Your task to perform on an android device: Add "logitech g933" to the cart on amazon.com, then select checkout. Image 0: 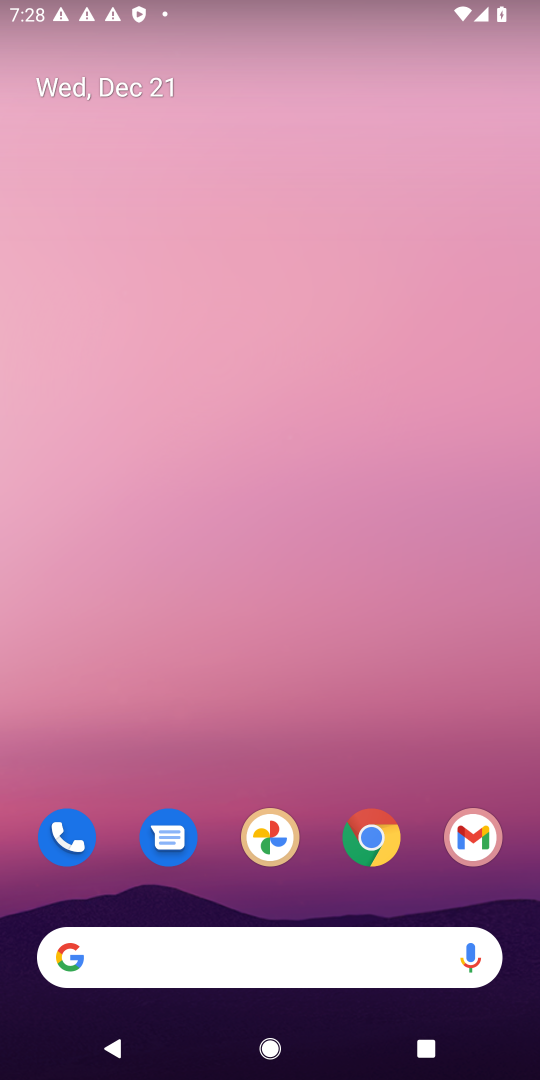
Step 0: drag from (192, 913) to (192, 235)
Your task to perform on an android device: Add "logitech g933" to the cart on amazon.com, then select checkout. Image 1: 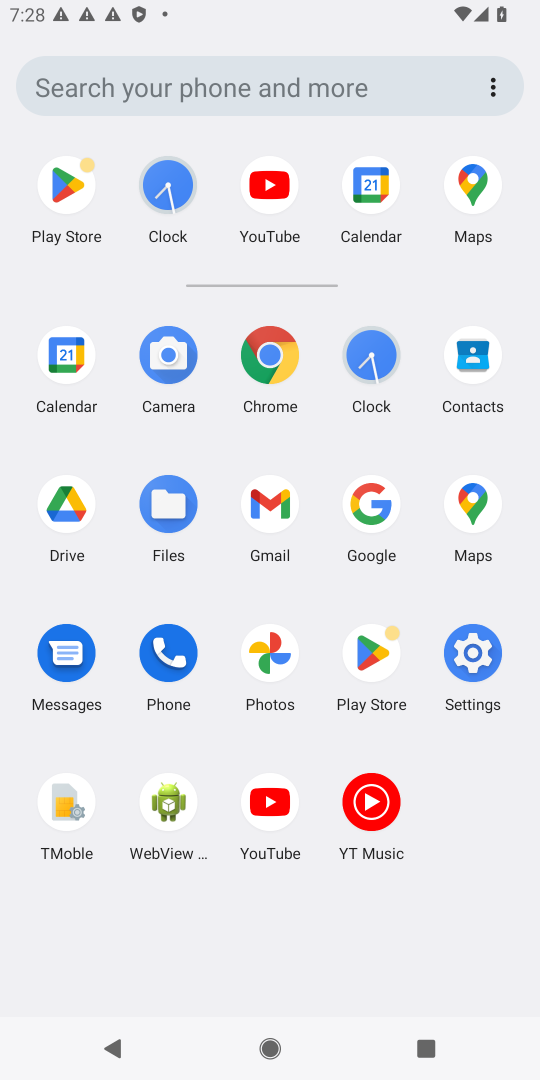
Step 1: click (361, 498)
Your task to perform on an android device: Add "logitech g933" to the cart on amazon.com, then select checkout. Image 2: 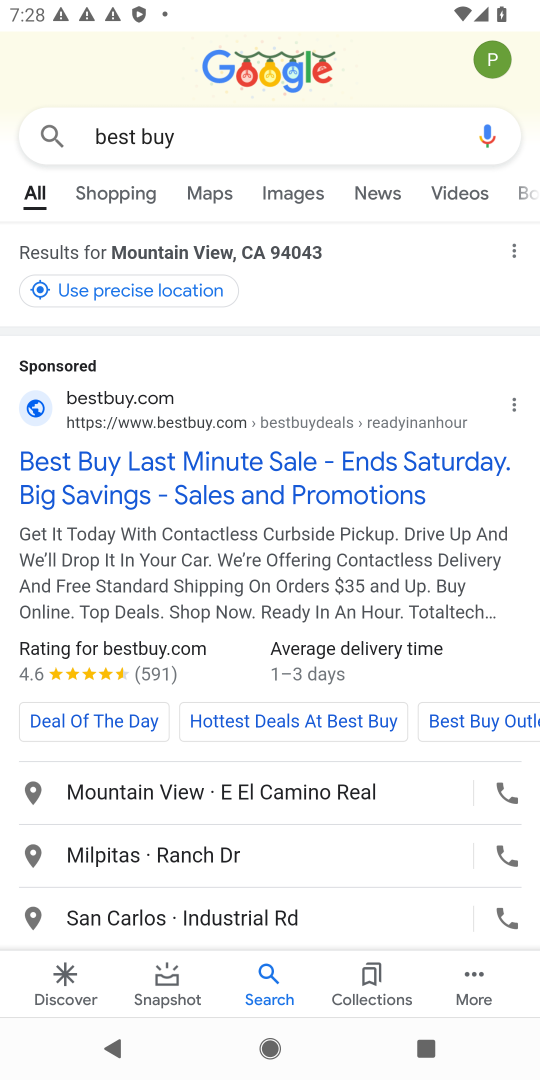
Step 2: click (134, 137)
Your task to perform on an android device: Add "logitech g933" to the cart on amazon.com, then select checkout. Image 3: 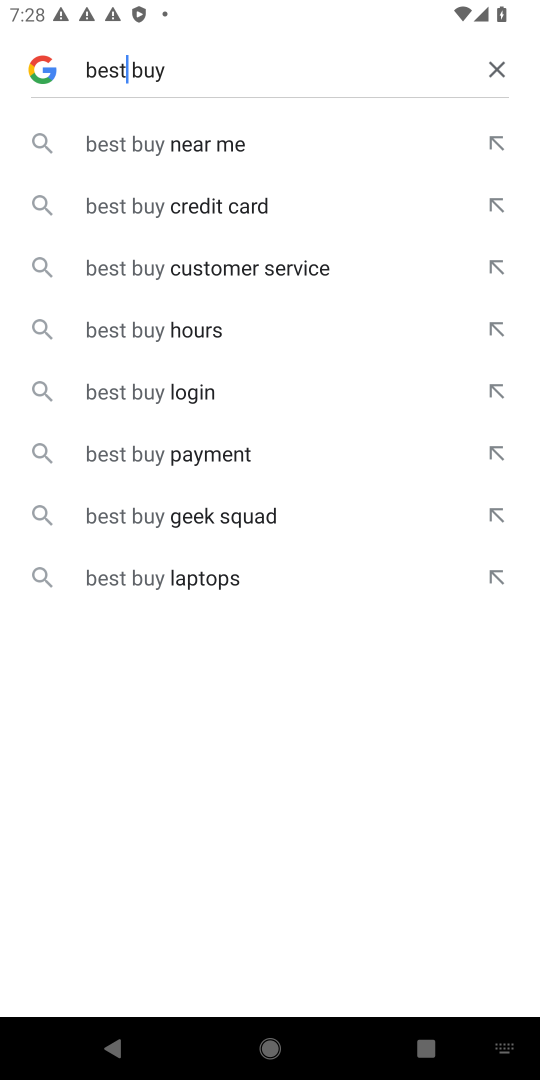
Step 3: click (501, 66)
Your task to perform on an android device: Add "logitech g933" to the cart on amazon.com, then select checkout. Image 4: 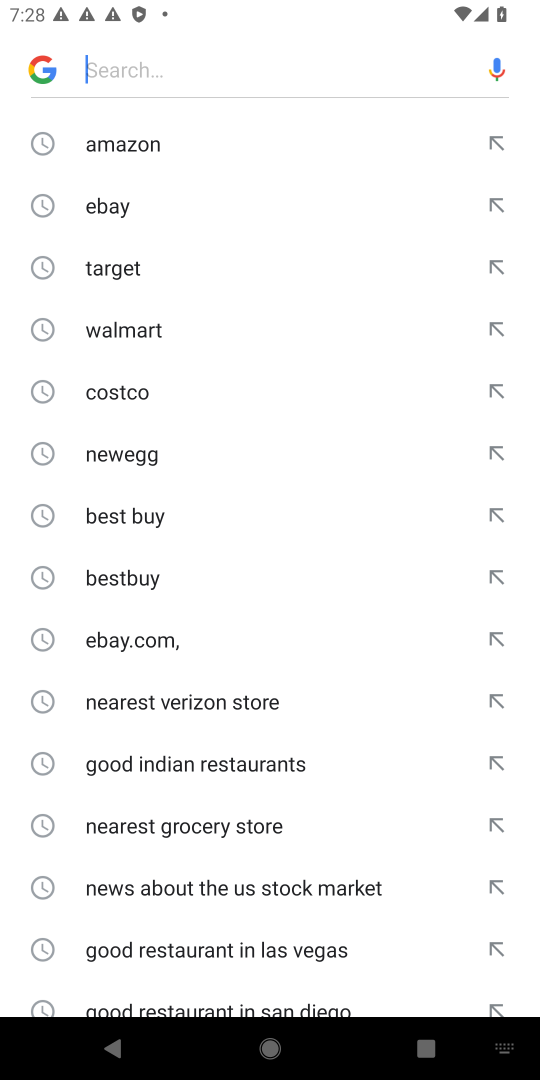
Step 4: click (128, 147)
Your task to perform on an android device: Add "logitech g933" to the cart on amazon.com, then select checkout. Image 5: 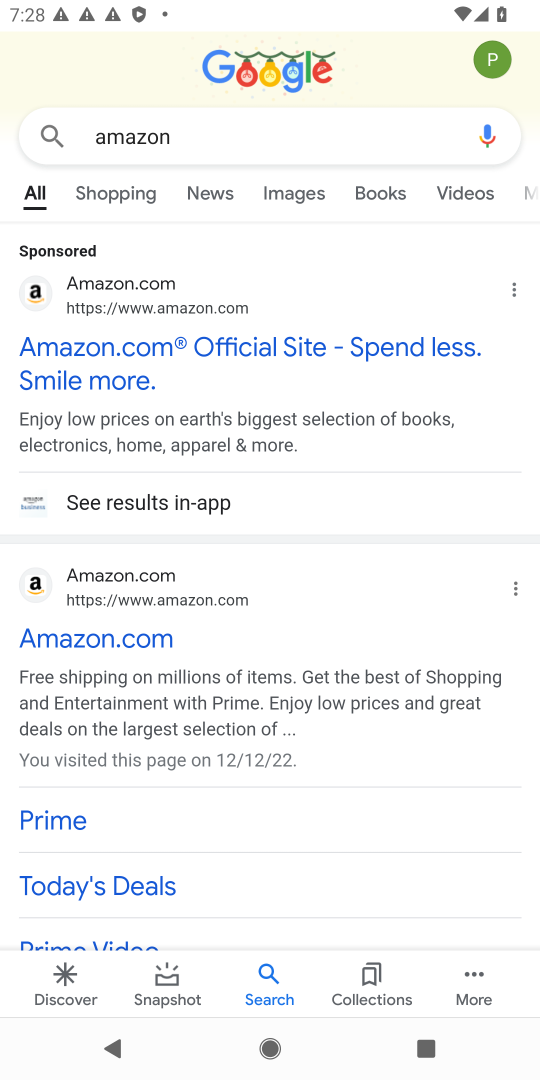
Step 5: click (158, 364)
Your task to perform on an android device: Add "logitech g933" to the cart on amazon.com, then select checkout. Image 6: 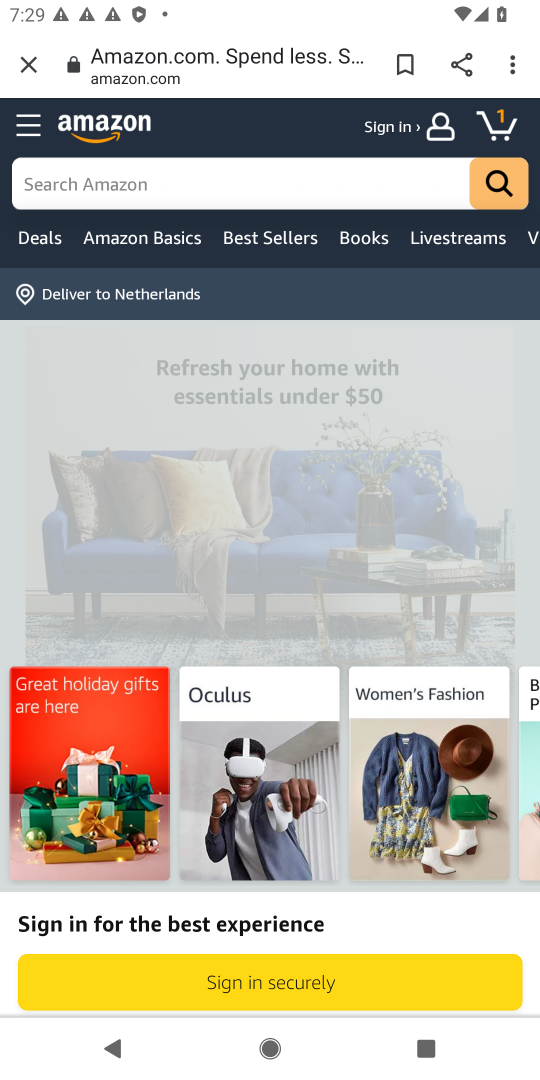
Step 6: click (36, 190)
Your task to perform on an android device: Add "logitech g933" to the cart on amazon.com, then select checkout. Image 7: 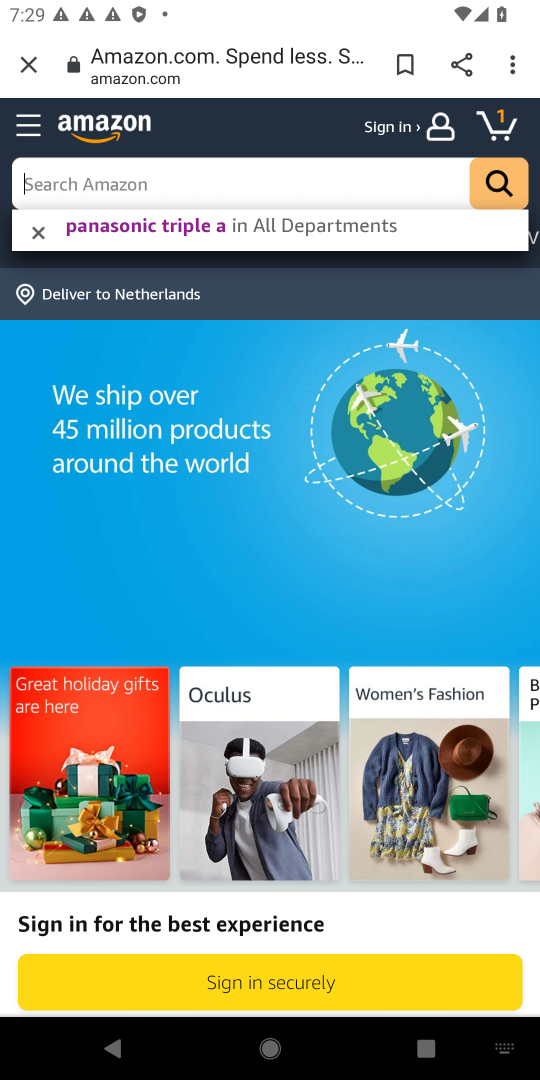
Step 7: type "logitech g933"
Your task to perform on an android device: Add "logitech g933" to the cart on amazon.com, then select checkout. Image 8: 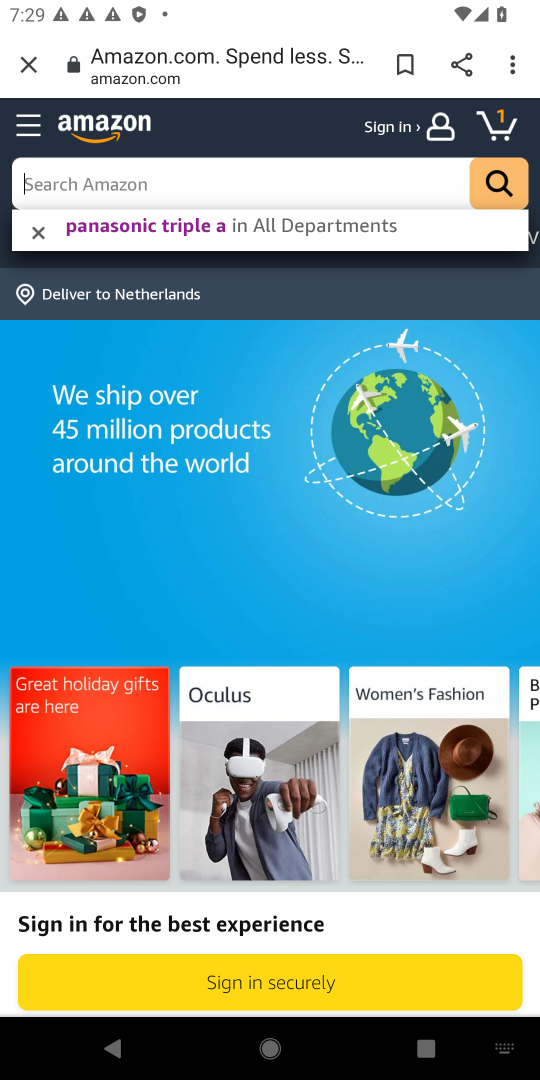
Step 8: click (501, 184)
Your task to perform on an android device: Add "logitech g933" to the cart on amazon.com, then select checkout. Image 9: 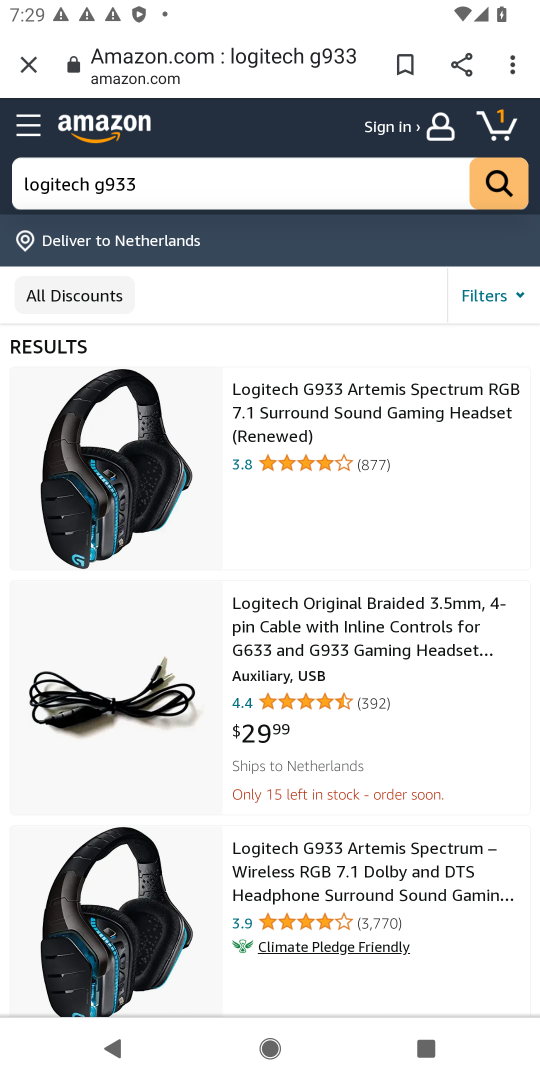
Step 9: click (343, 411)
Your task to perform on an android device: Add "logitech g933" to the cart on amazon.com, then select checkout. Image 10: 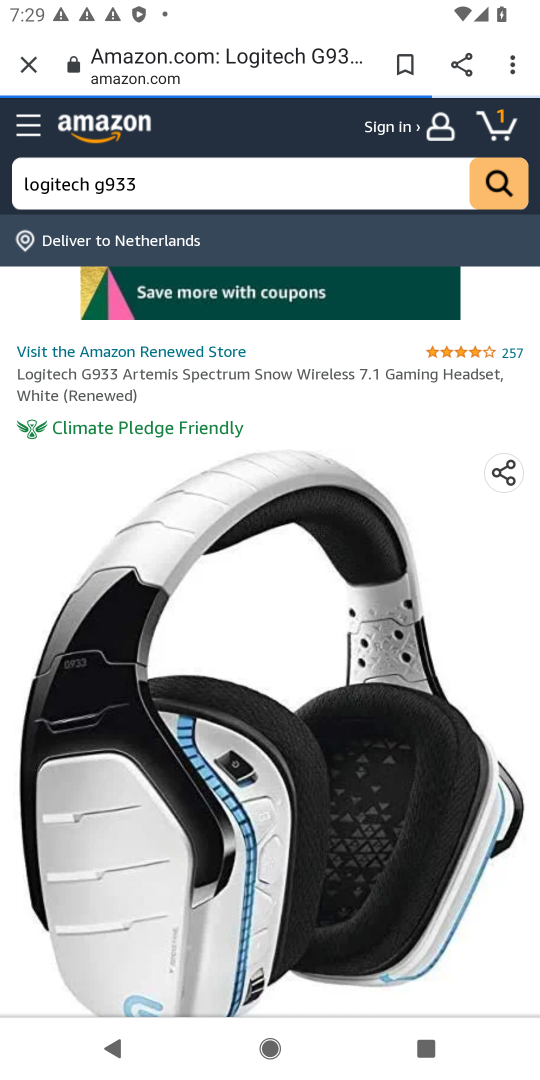
Step 10: task complete